Your task to perform on an android device: turn on javascript in the chrome app Image 0: 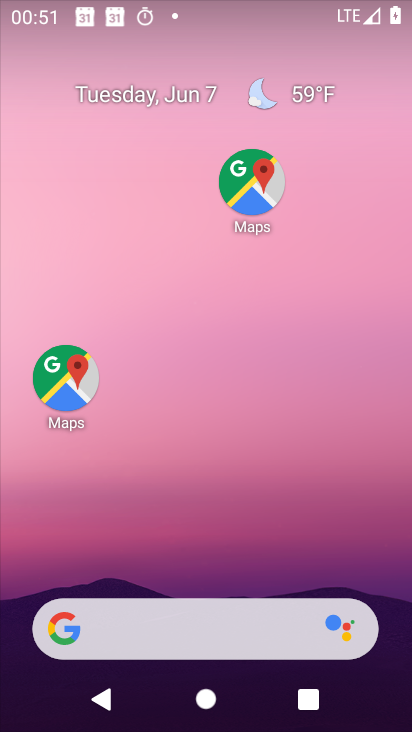
Step 0: drag from (220, 456) to (210, 91)
Your task to perform on an android device: turn on javascript in the chrome app Image 1: 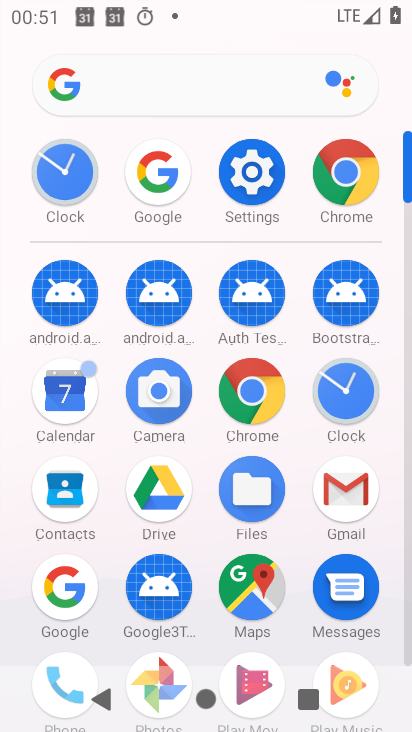
Step 1: click (342, 171)
Your task to perform on an android device: turn on javascript in the chrome app Image 2: 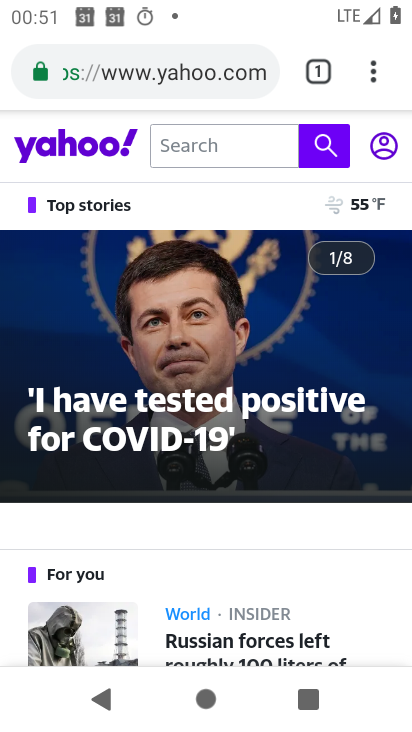
Step 2: click (365, 71)
Your task to perform on an android device: turn on javascript in the chrome app Image 3: 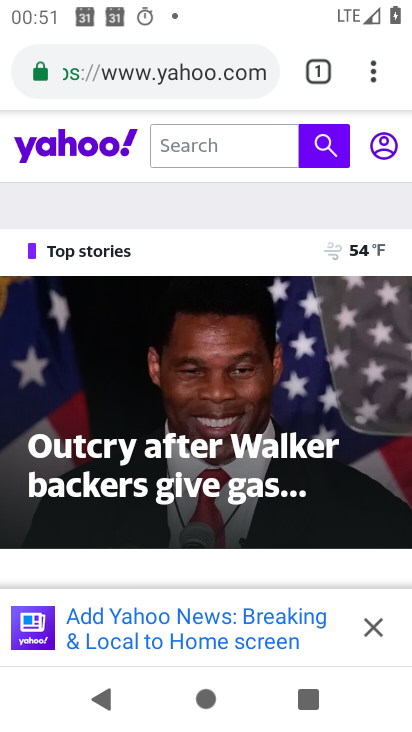
Step 3: click (365, 70)
Your task to perform on an android device: turn on javascript in the chrome app Image 4: 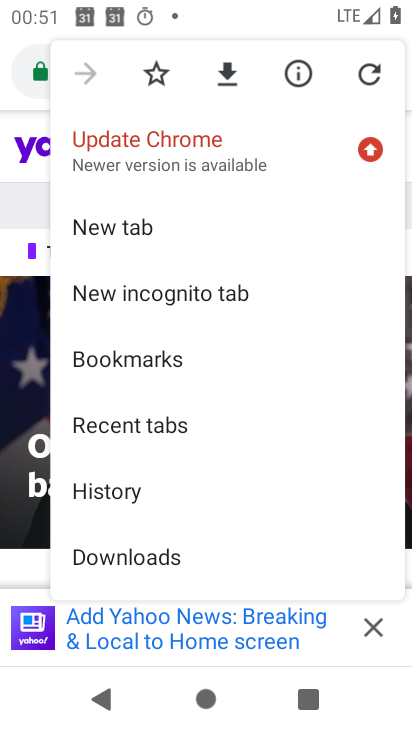
Step 4: drag from (197, 220) to (187, 66)
Your task to perform on an android device: turn on javascript in the chrome app Image 5: 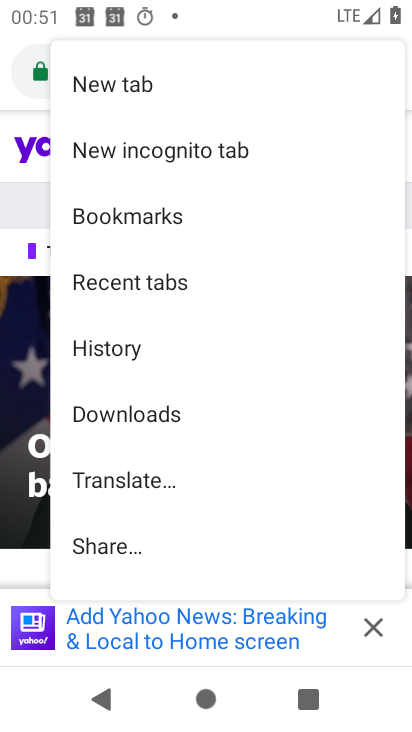
Step 5: drag from (236, 505) to (215, 90)
Your task to perform on an android device: turn on javascript in the chrome app Image 6: 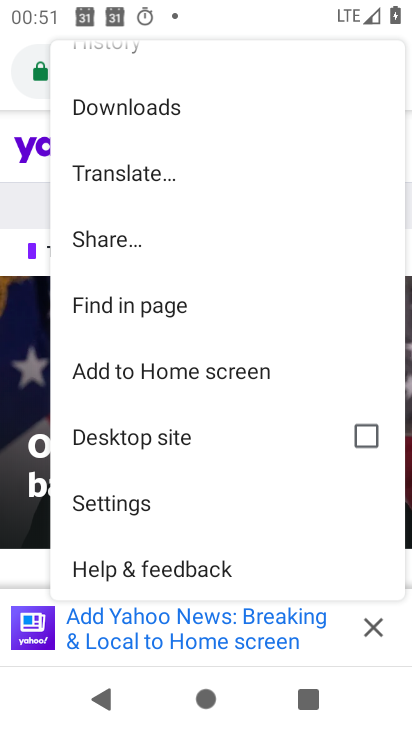
Step 6: click (149, 499)
Your task to perform on an android device: turn on javascript in the chrome app Image 7: 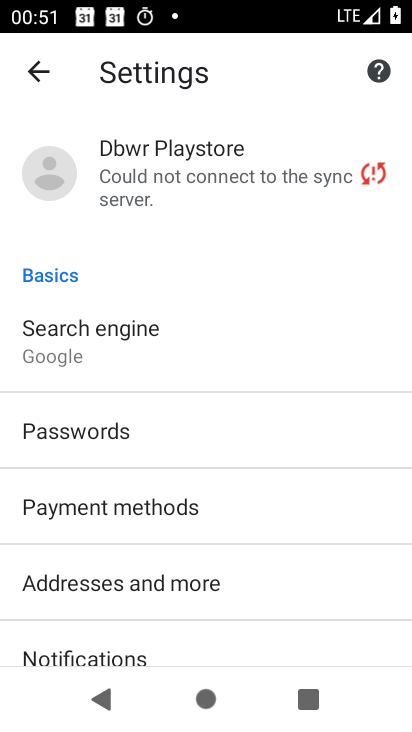
Step 7: drag from (264, 548) to (262, 174)
Your task to perform on an android device: turn on javascript in the chrome app Image 8: 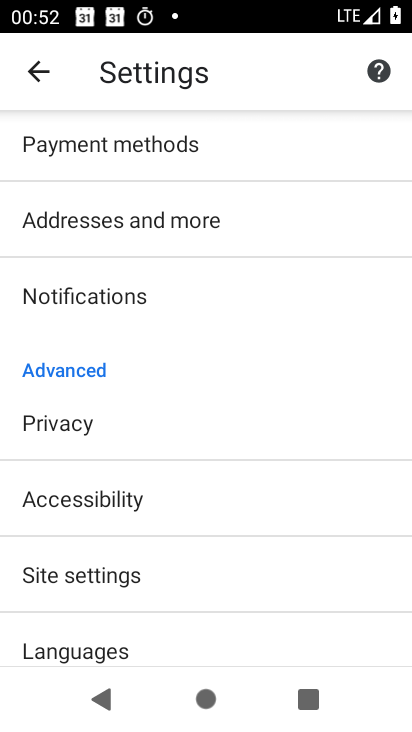
Step 8: click (90, 579)
Your task to perform on an android device: turn on javascript in the chrome app Image 9: 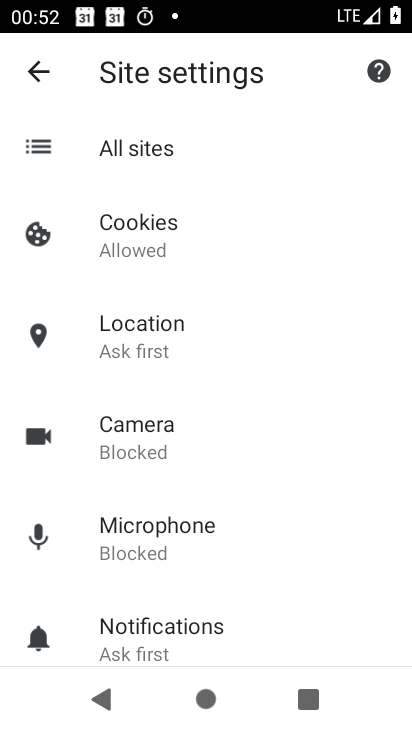
Step 9: drag from (197, 564) to (201, 108)
Your task to perform on an android device: turn on javascript in the chrome app Image 10: 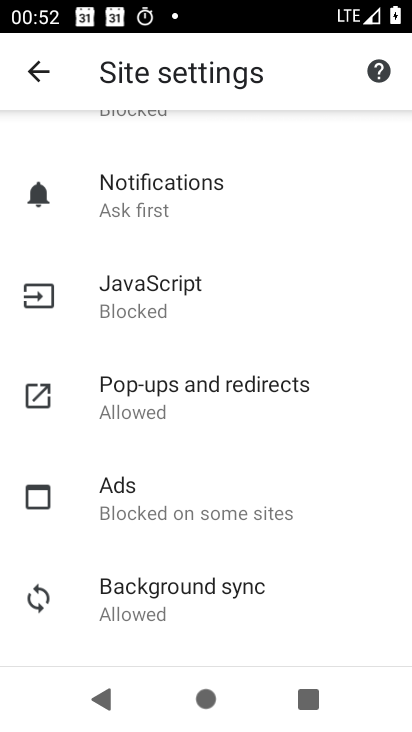
Step 10: click (121, 317)
Your task to perform on an android device: turn on javascript in the chrome app Image 11: 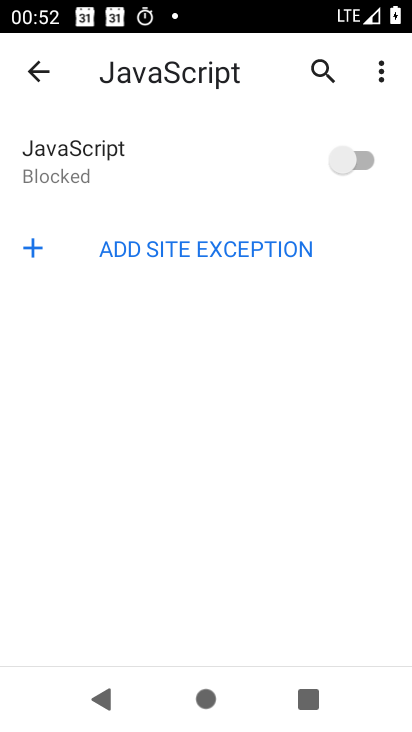
Step 11: click (357, 159)
Your task to perform on an android device: turn on javascript in the chrome app Image 12: 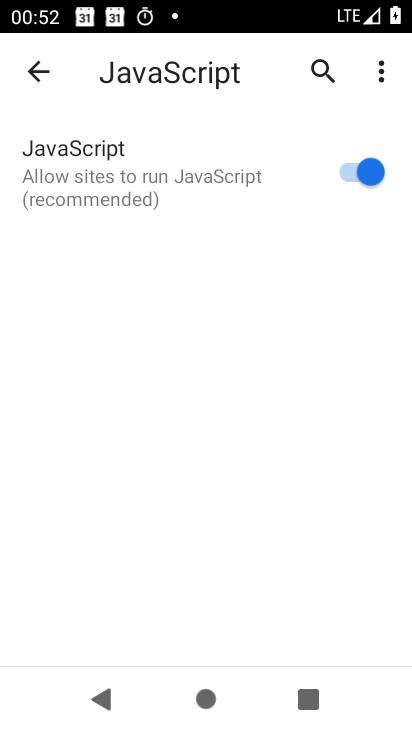
Step 12: task complete